Your task to perform on an android device: change your default location settings in chrome Image 0: 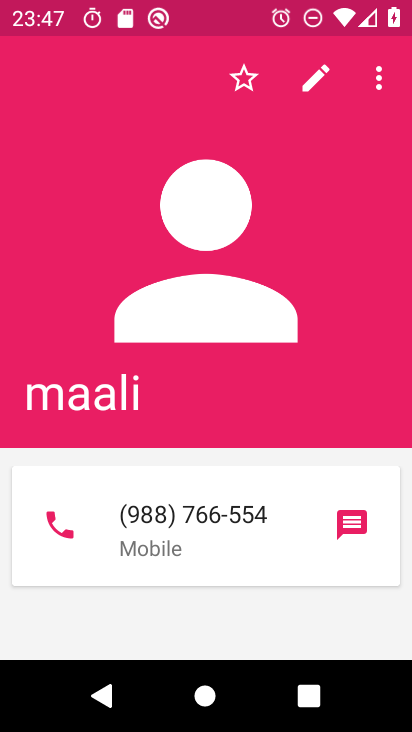
Step 0: press home button
Your task to perform on an android device: change your default location settings in chrome Image 1: 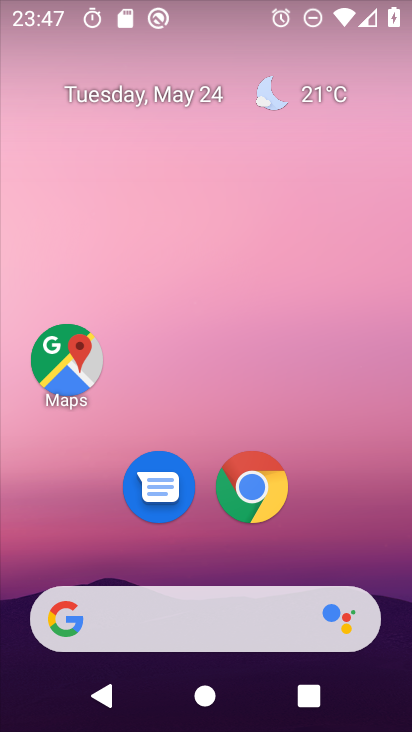
Step 1: click (354, 482)
Your task to perform on an android device: change your default location settings in chrome Image 2: 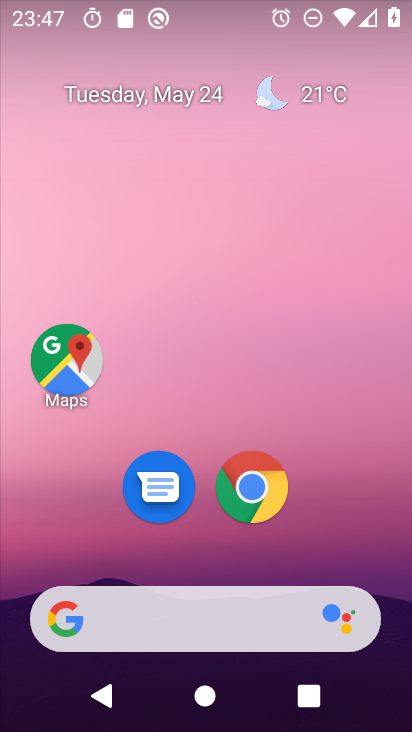
Step 2: click (256, 488)
Your task to perform on an android device: change your default location settings in chrome Image 3: 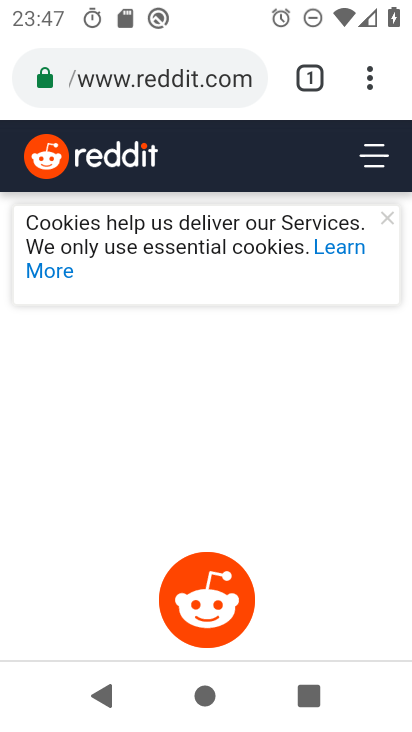
Step 3: click (373, 79)
Your task to perform on an android device: change your default location settings in chrome Image 4: 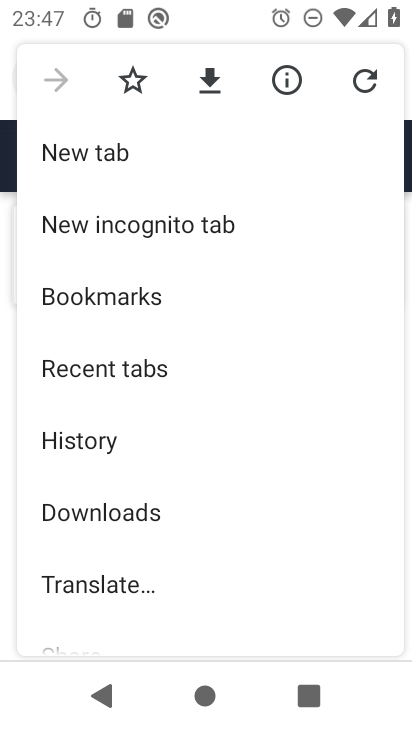
Step 4: drag from (194, 461) to (184, 144)
Your task to perform on an android device: change your default location settings in chrome Image 5: 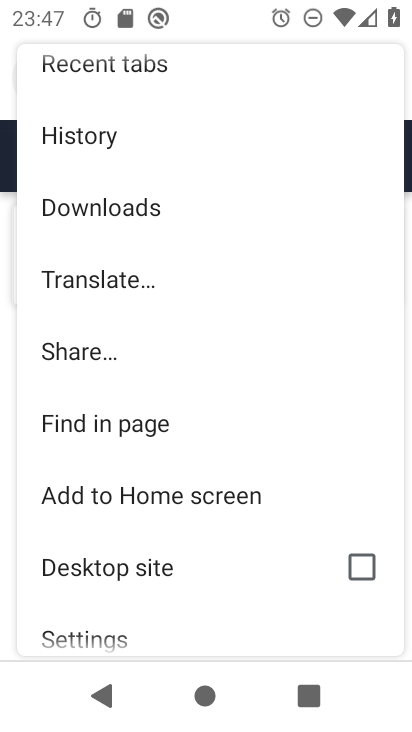
Step 5: drag from (189, 491) to (179, 252)
Your task to perform on an android device: change your default location settings in chrome Image 6: 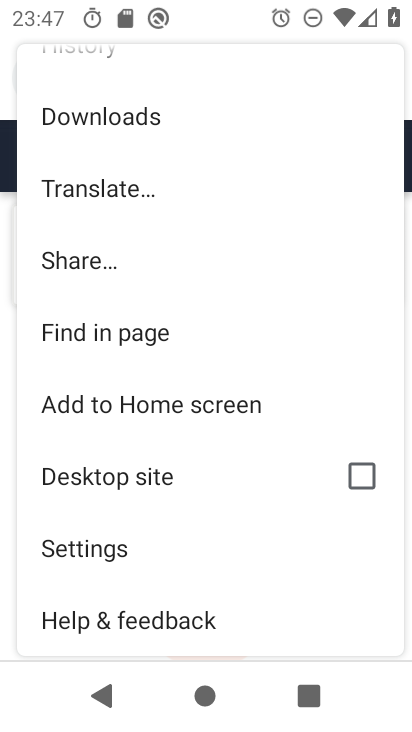
Step 6: click (107, 547)
Your task to perform on an android device: change your default location settings in chrome Image 7: 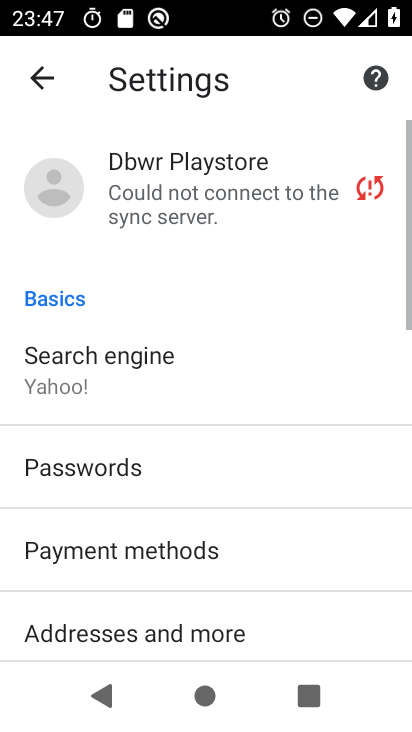
Step 7: drag from (205, 555) to (200, 207)
Your task to perform on an android device: change your default location settings in chrome Image 8: 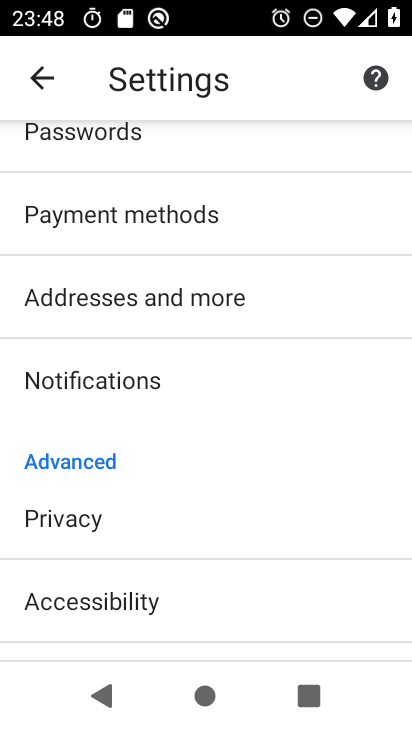
Step 8: drag from (112, 513) to (97, 256)
Your task to perform on an android device: change your default location settings in chrome Image 9: 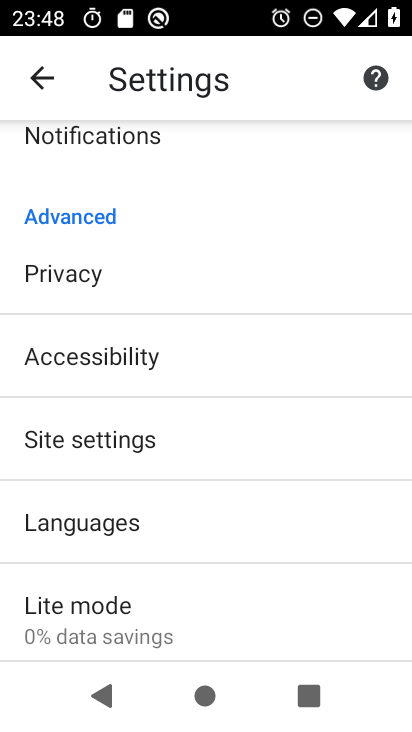
Step 9: click (102, 441)
Your task to perform on an android device: change your default location settings in chrome Image 10: 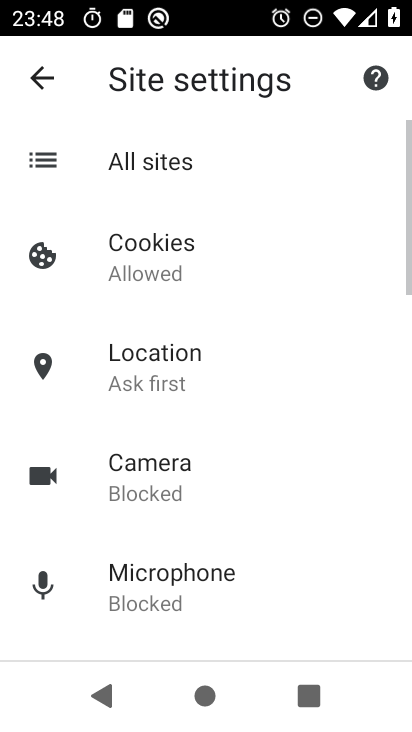
Step 10: click (146, 385)
Your task to perform on an android device: change your default location settings in chrome Image 11: 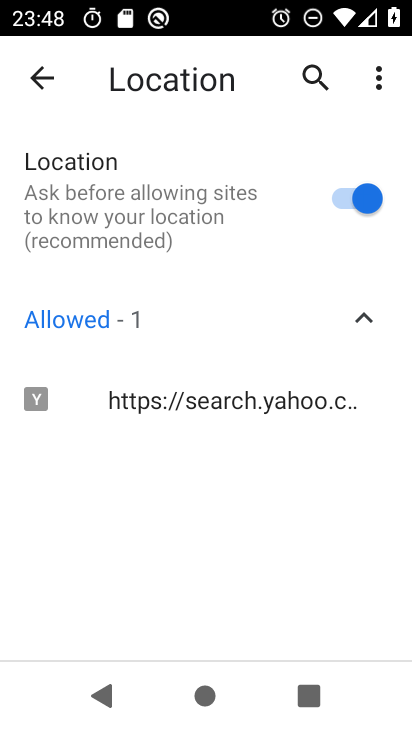
Step 11: click (353, 194)
Your task to perform on an android device: change your default location settings in chrome Image 12: 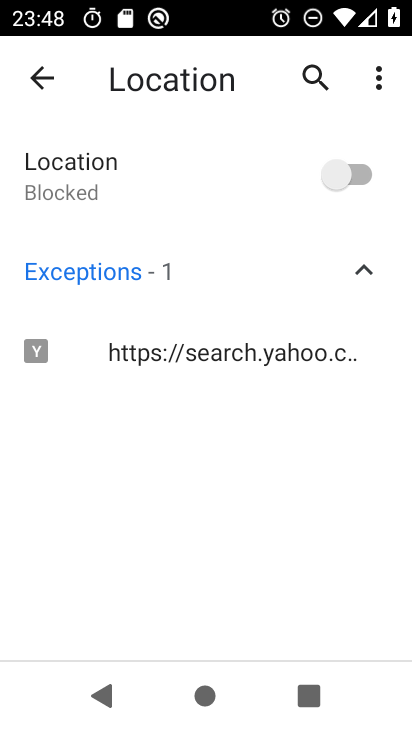
Step 12: task complete